Your task to perform on an android device: toggle location history Image 0: 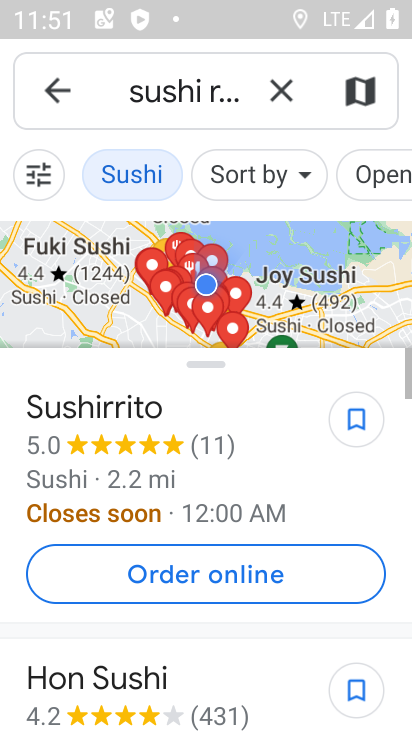
Step 0: press home button
Your task to perform on an android device: toggle location history Image 1: 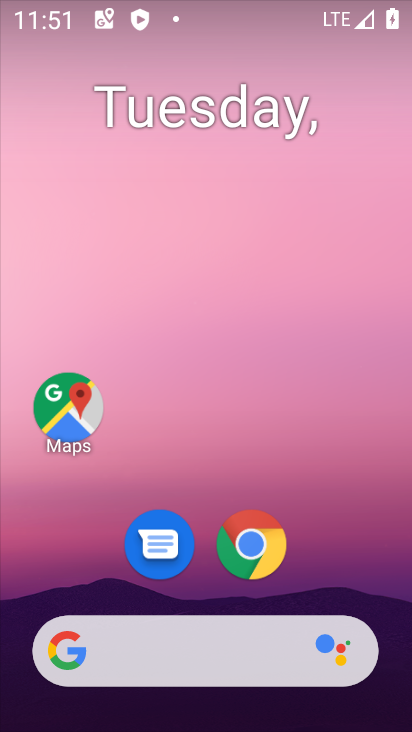
Step 1: drag from (391, 658) to (261, 108)
Your task to perform on an android device: toggle location history Image 2: 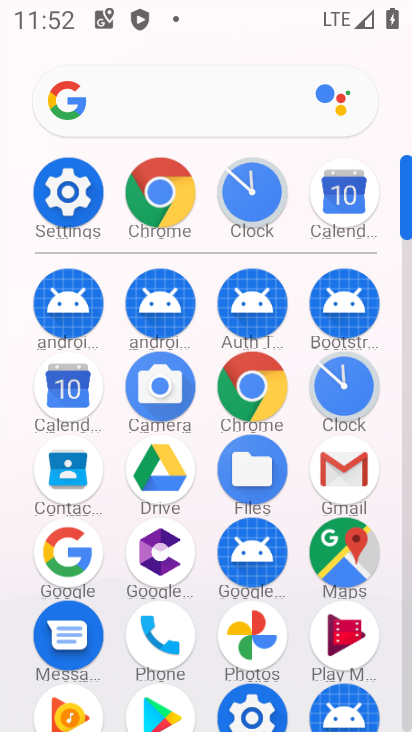
Step 2: click (53, 179)
Your task to perform on an android device: toggle location history Image 3: 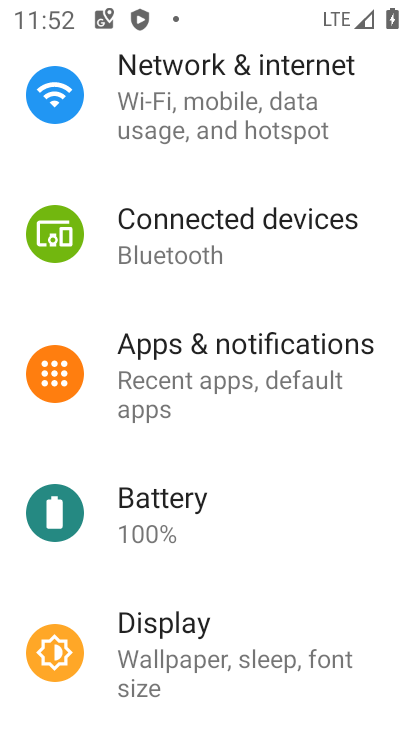
Step 3: drag from (209, 638) to (281, 201)
Your task to perform on an android device: toggle location history Image 4: 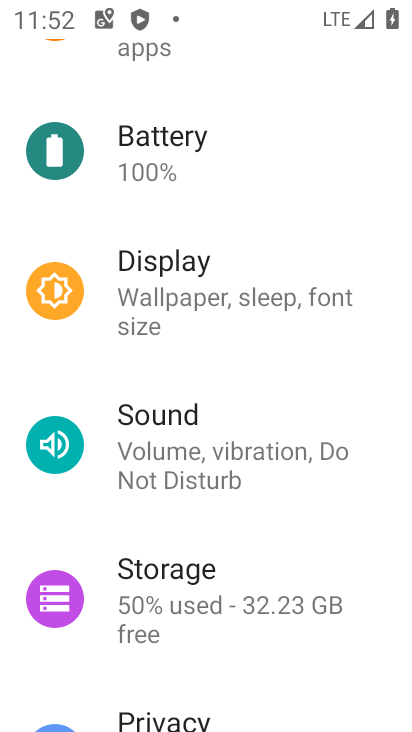
Step 4: drag from (183, 662) to (231, 213)
Your task to perform on an android device: toggle location history Image 5: 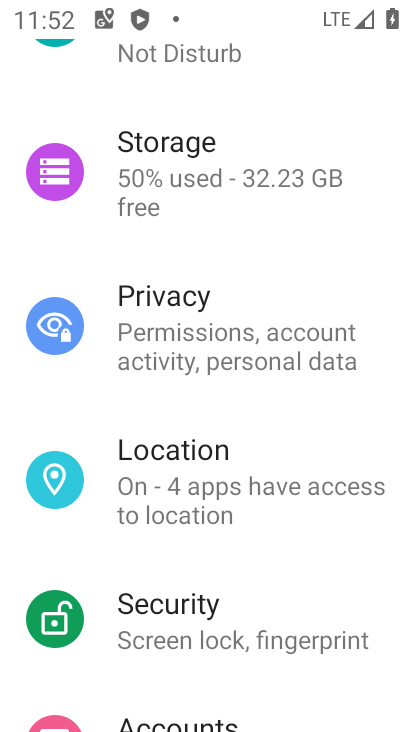
Step 5: click (211, 519)
Your task to perform on an android device: toggle location history Image 6: 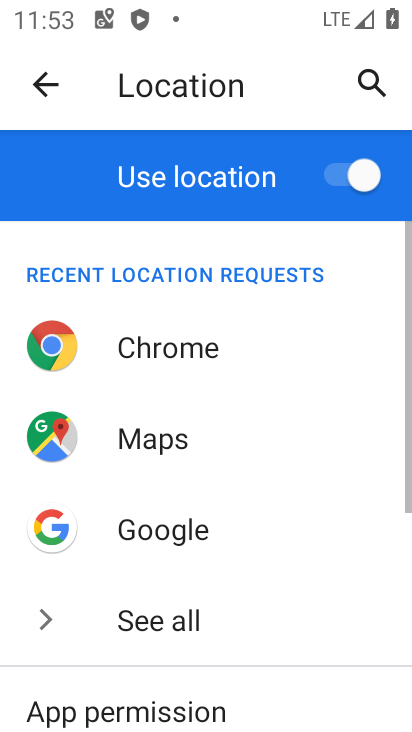
Step 6: drag from (158, 607) to (210, 110)
Your task to perform on an android device: toggle location history Image 7: 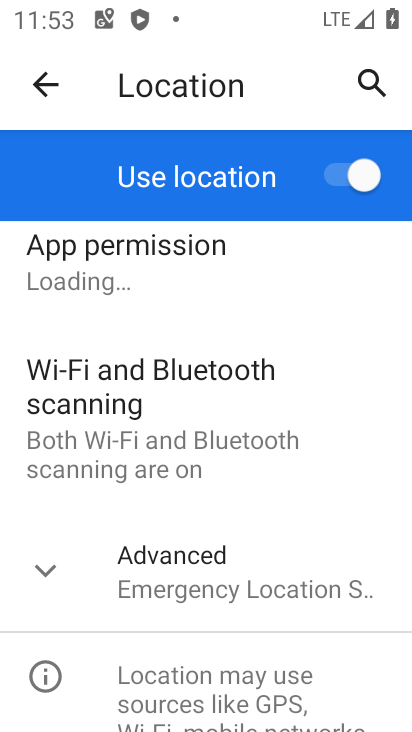
Step 7: click (49, 620)
Your task to perform on an android device: toggle location history Image 8: 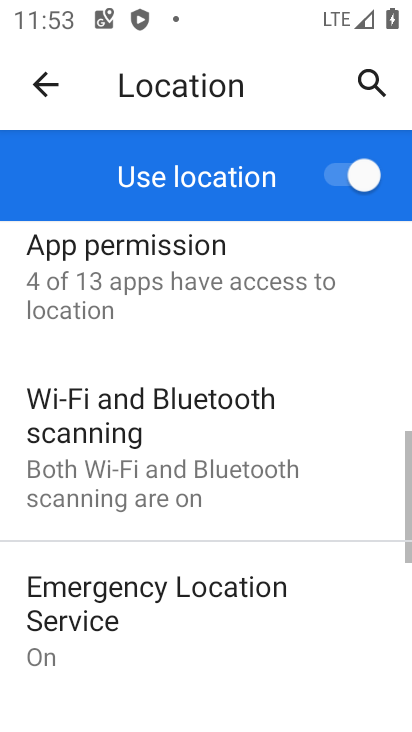
Step 8: drag from (105, 623) to (236, 235)
Your task to perform on an android device: toggle location history Image 9: 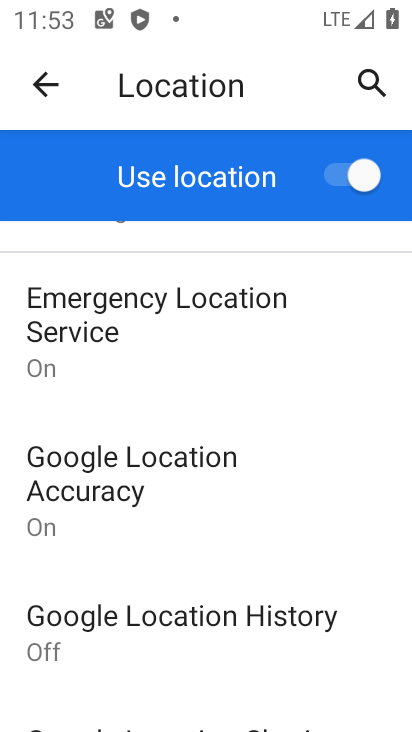
Step 9: click (199, 605)
Your task to perform on an android device: toggle location history Image 10: 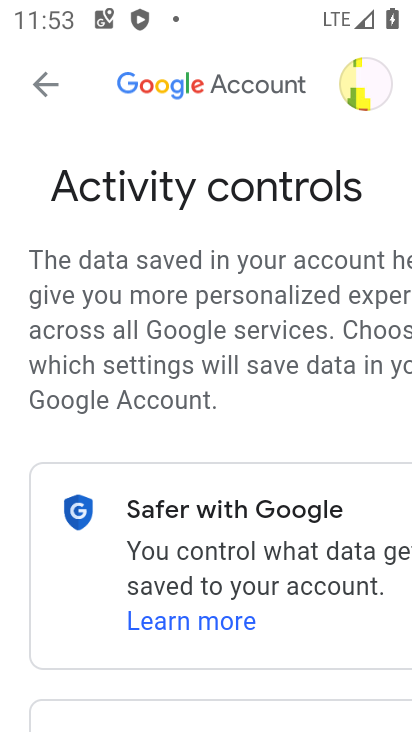
Step 10: drag from (283, 659) to (186, 113)
Your task to perform on an android device: toggle location history Image 11: 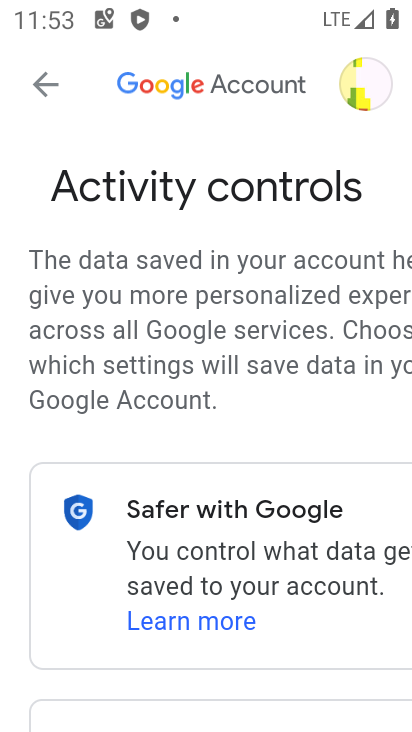
Step 11: drag from (325, 614) to (164, 97)
Your task to perform on an android device: toggle location history Image 12: 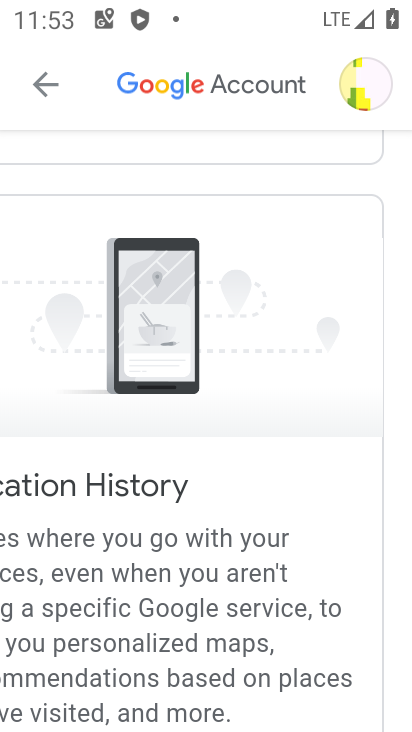
Step 12: drag from (296, 570) to (242, 105)
Your task to perform on an android device: toggle location history Image 13: 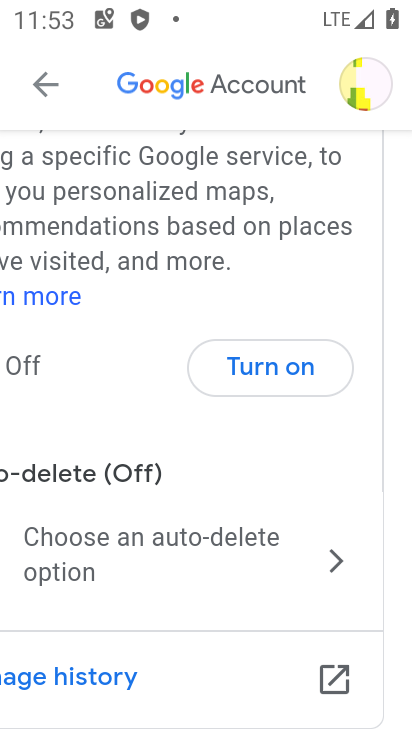
Step 13: click (279, 369)
Your task to perform on an android device: toggle location history Image 14: 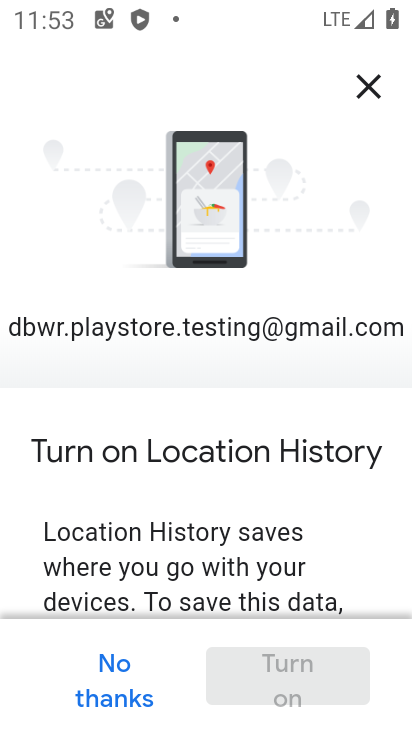
Step 14: task complete